Your task to perform on an android device: Empty the shopping cart on newegg. Add "razer nari" to the cart on newegg Image 0: 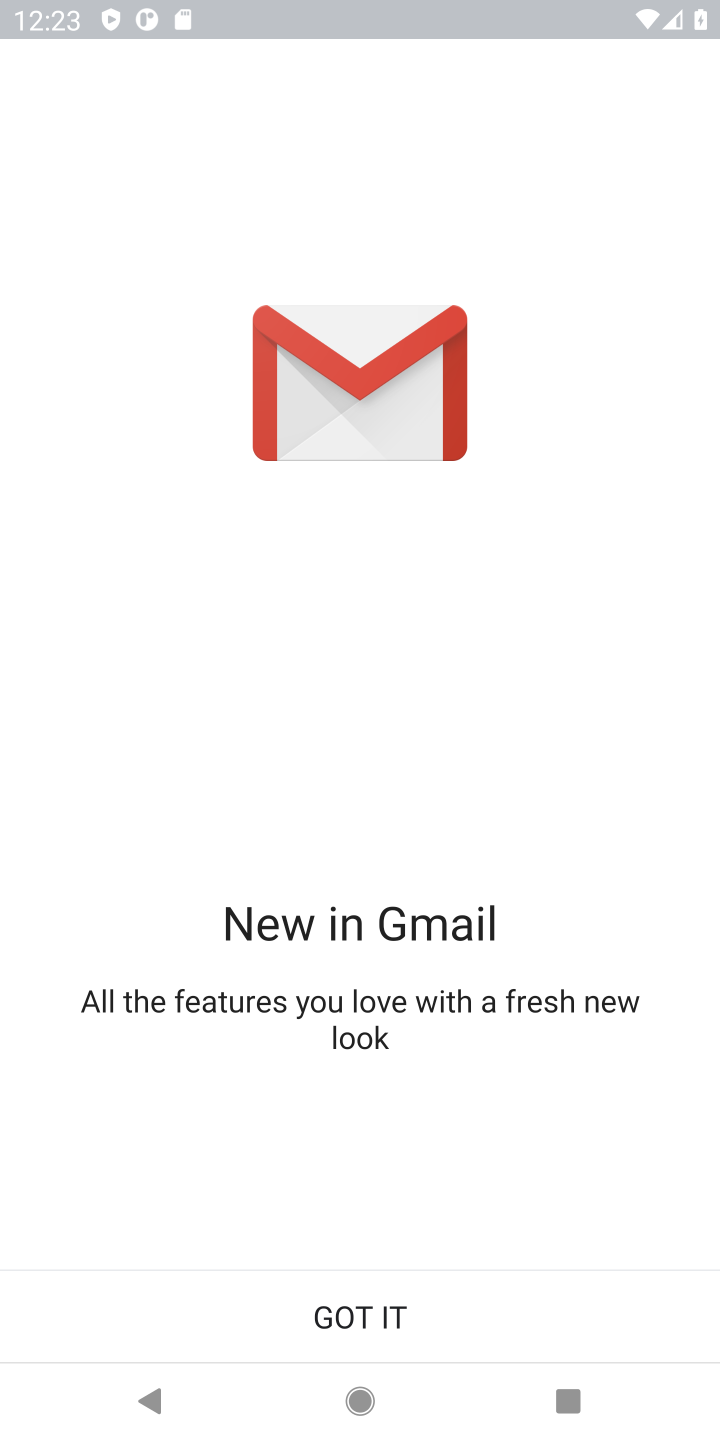
Step 0: press home button
Your task to perform on an android device: Empty the shopping cart on newegg. Add "razer nari" to the cart on newegg Image 1: 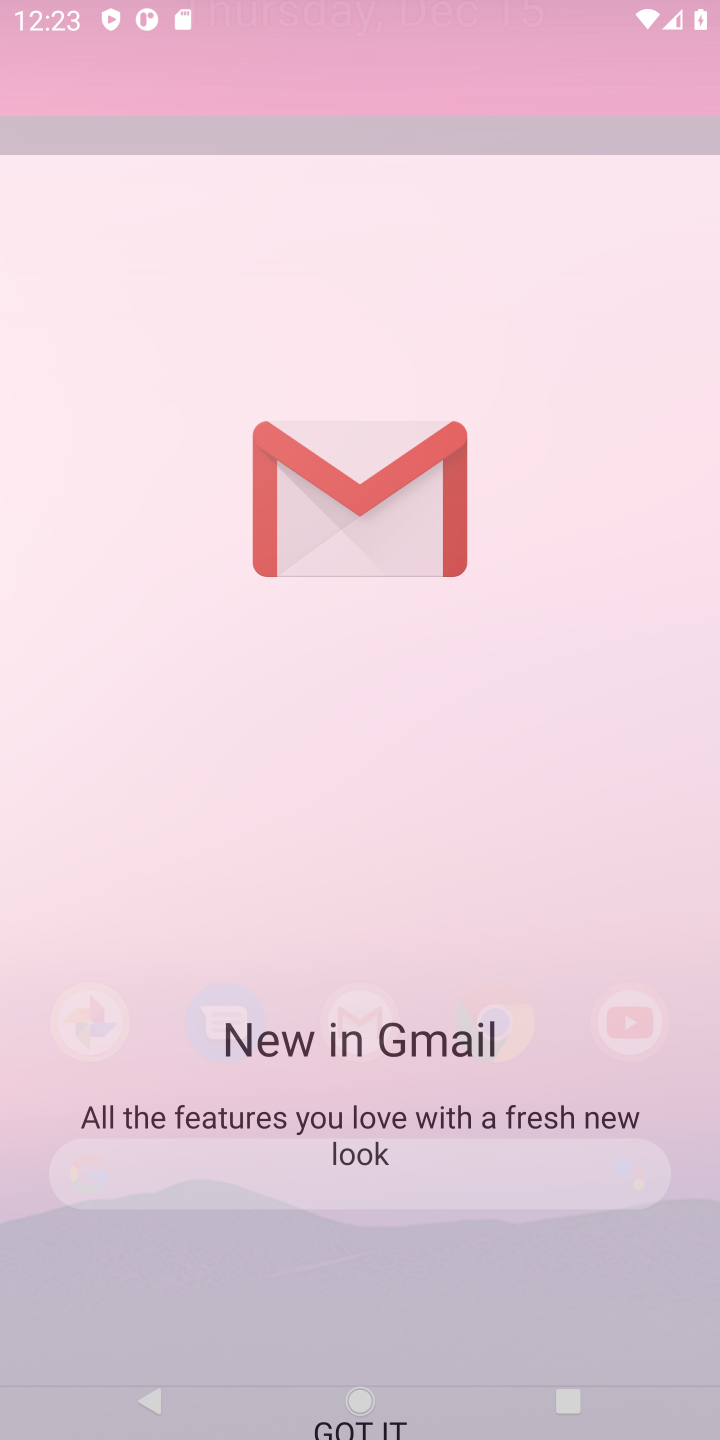
Step 1: press home button
Your task to perform on an android device: Empty the shopping cart on newegg. Add "razer nari" to the cart on newegg Image 2: 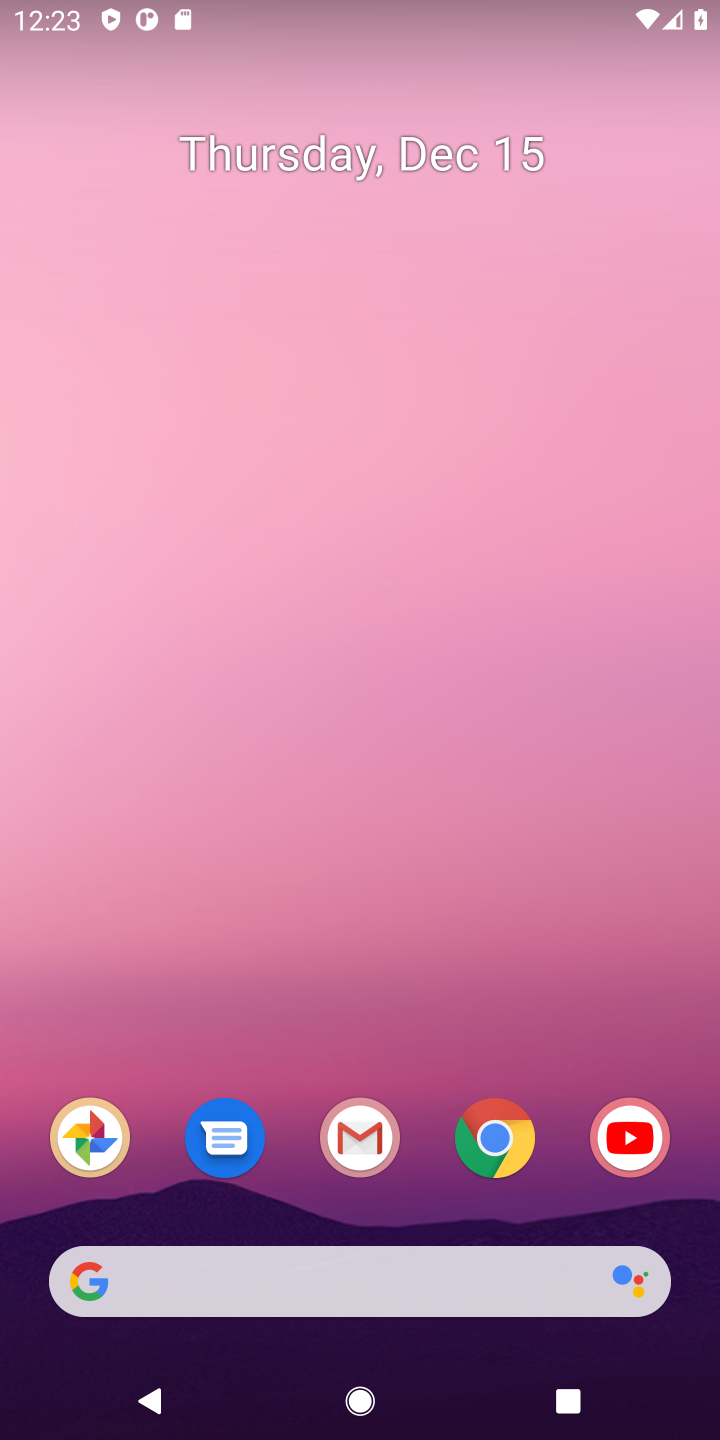
Step 2: click (489, 1139)
Your task to perform on an android device: Empty the shopping cart on newegg. Add "razer nari" to the cart on newegg Image 3: 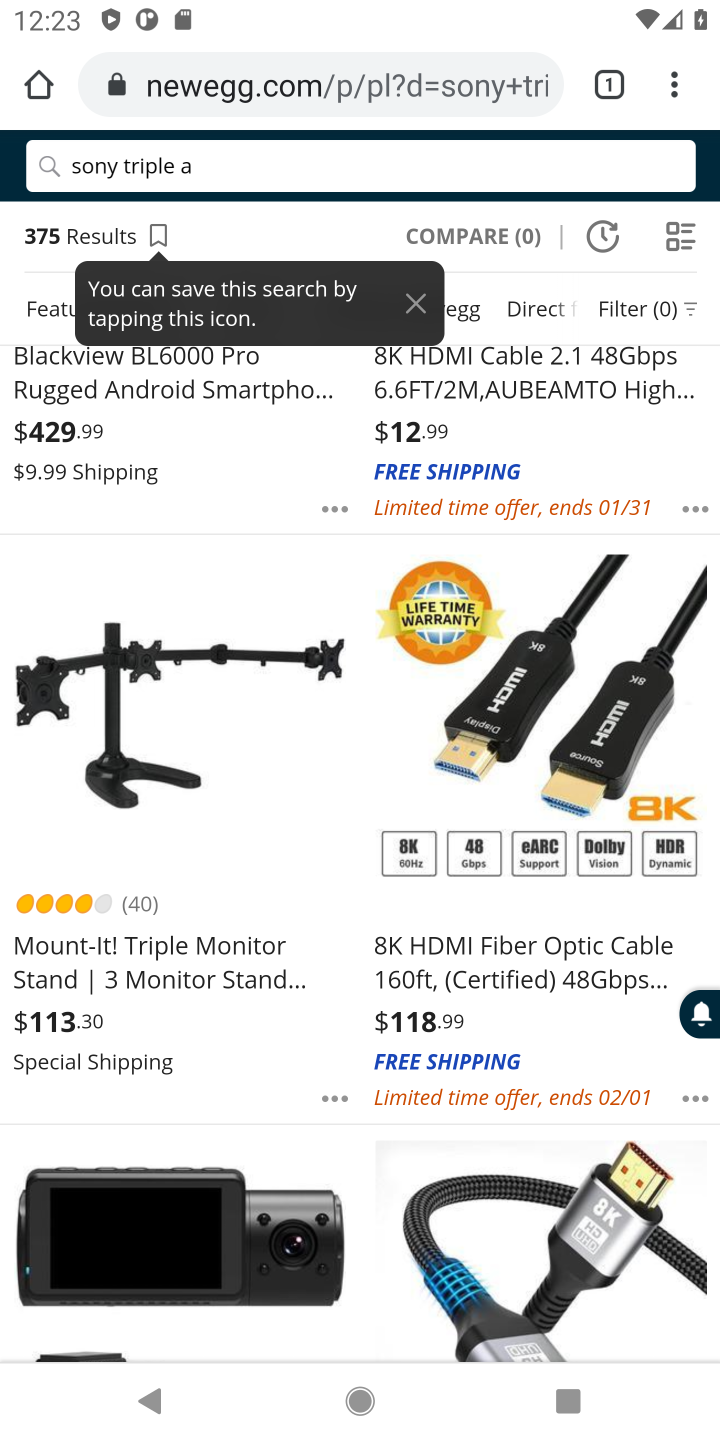
Step 3: click (254, 95)
Your task to perform on an android device: Empty the shopping cart on newegg. Add "razer nari" to the cart on newegg Image 4: 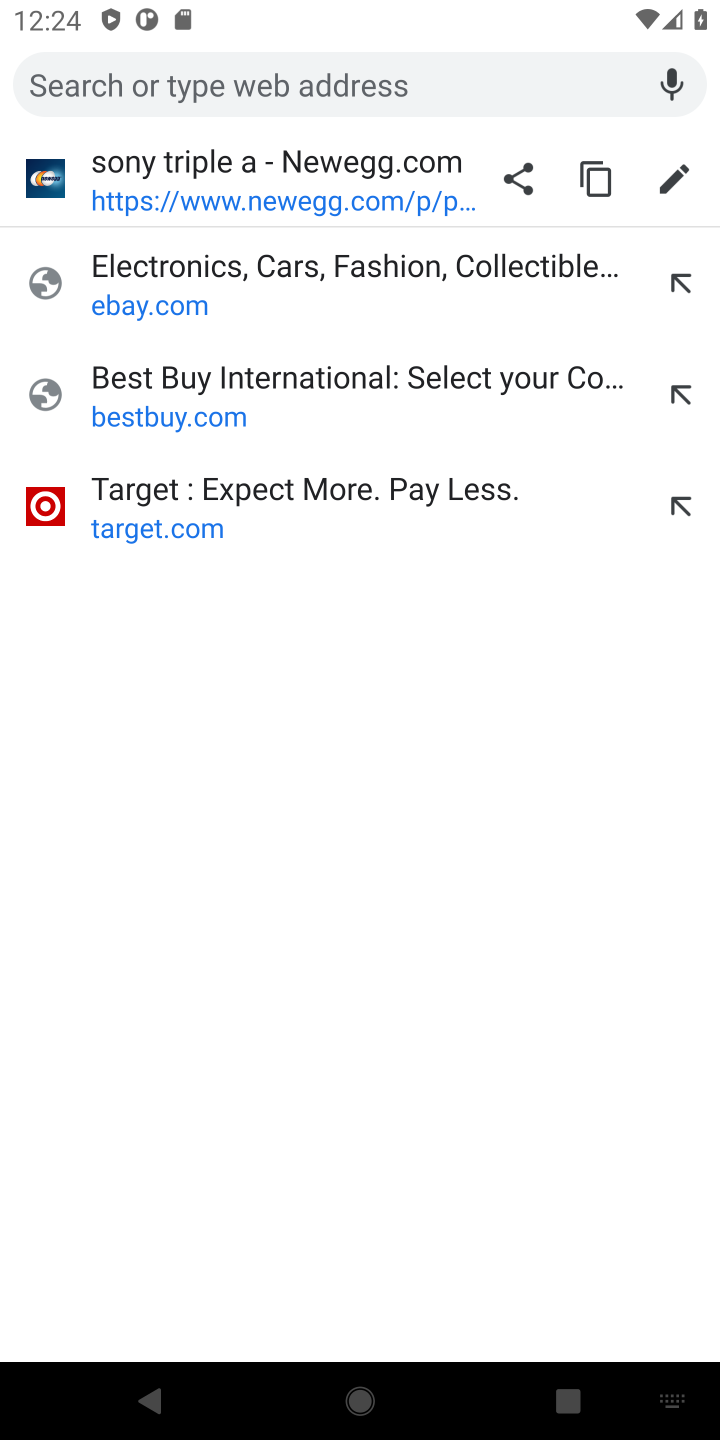
Step 4: type "newegg"
Your task to perform on an android device: Empty the shopping cart on newegg. Add "razer nari" to the cart on newegg Image 5: 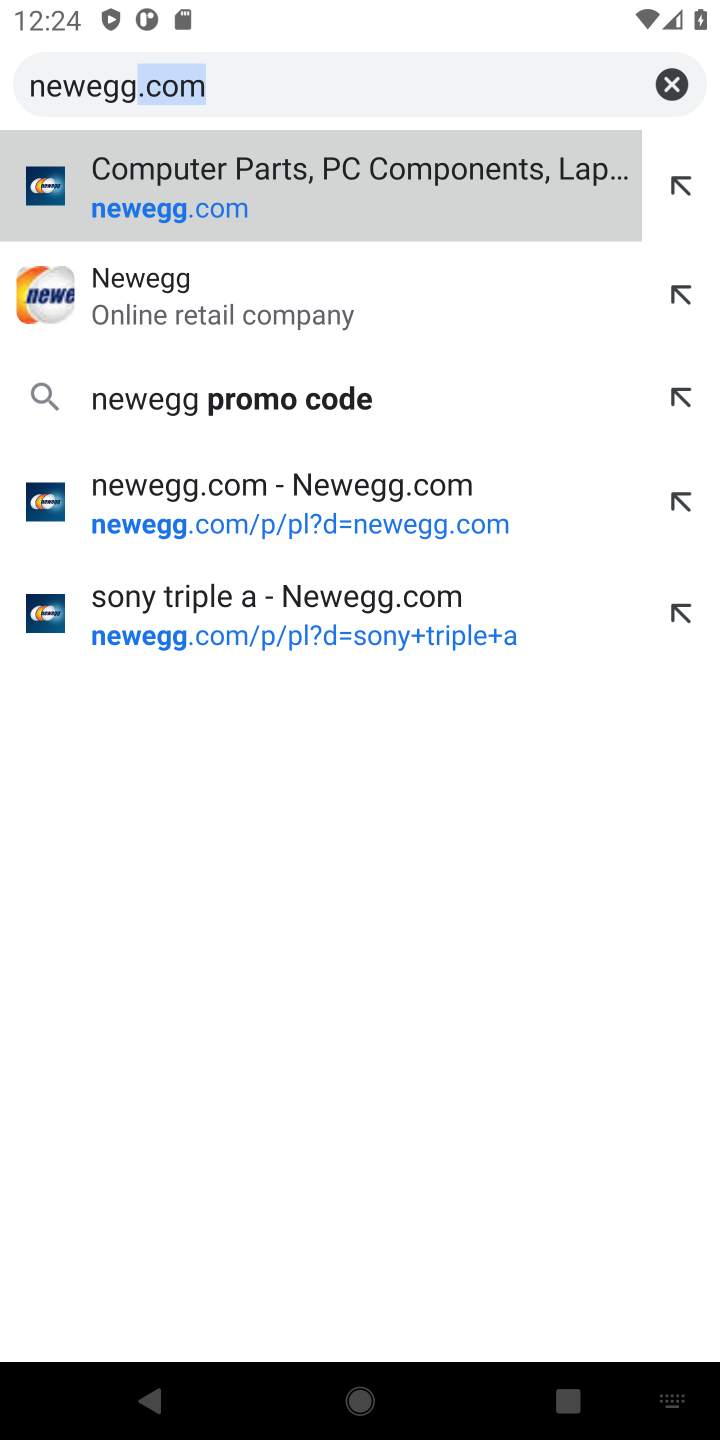
Step 5: click (160, 201)
Your task to perform on an android device: Empty the shopping cart on newegg. Add "razer nari" to the cart on newegg Image 6: 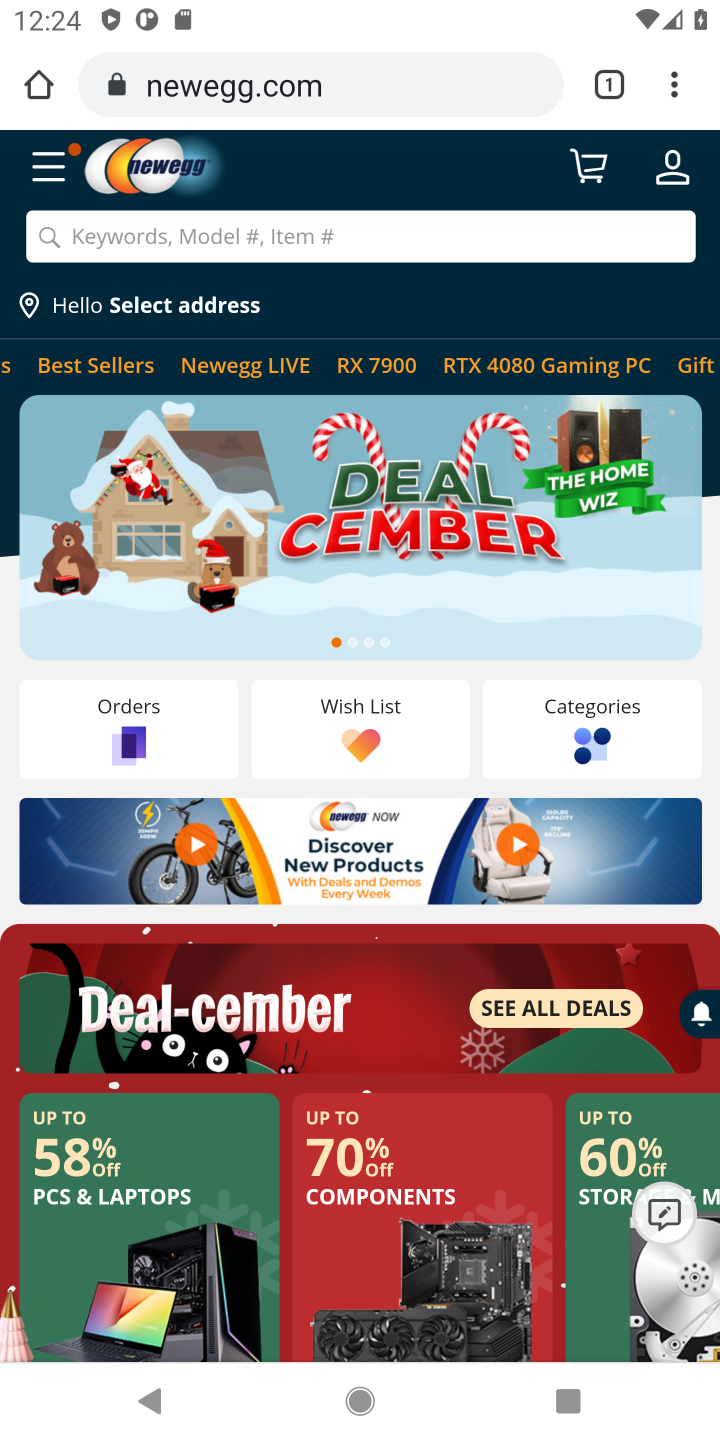
Step 6: click (597, 180)
Your task to perform on an android device: Empty the shopping cart on newegg. Add "razer nari" to the cart on newegg Image 7: 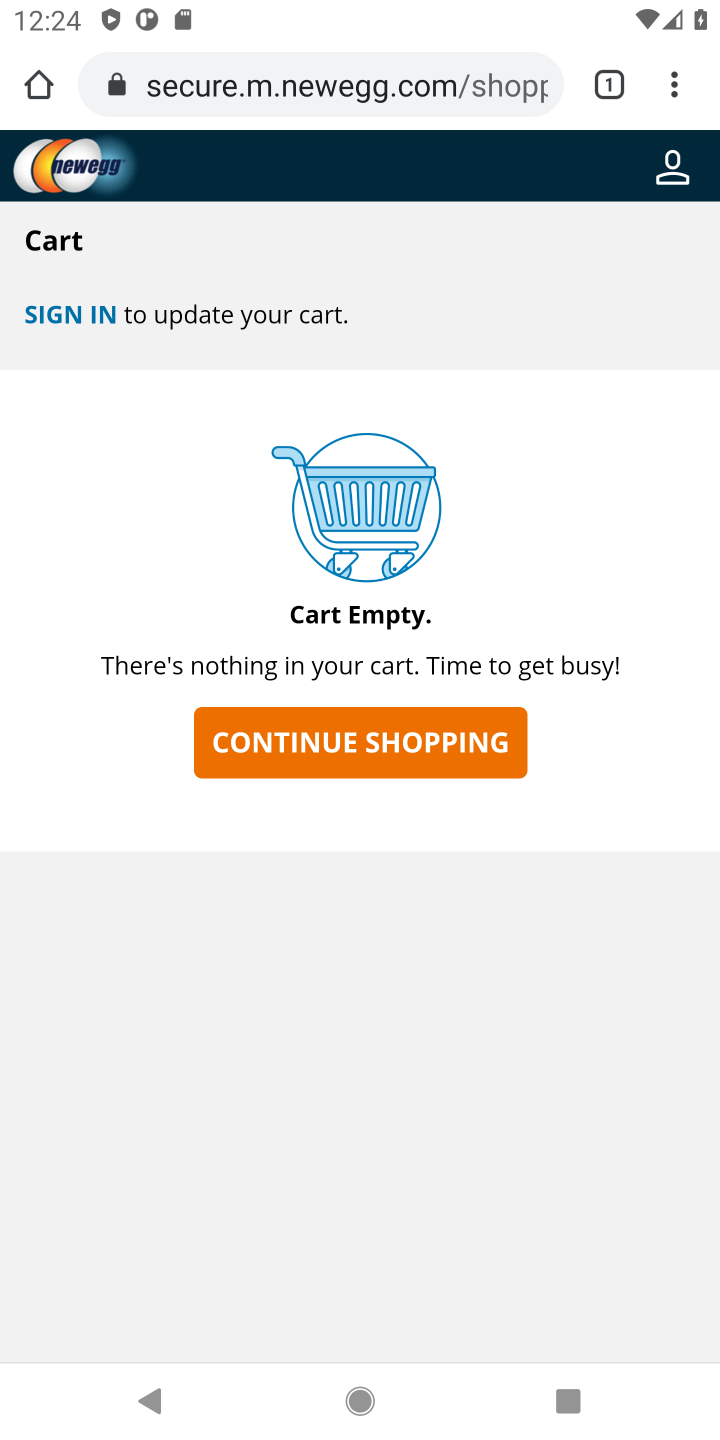
Step 7: click (76, 172)
Your task to perform on an android device: Empty the shopping cart on newegg. Add "razer nari" to the cart on newegg Image 8: 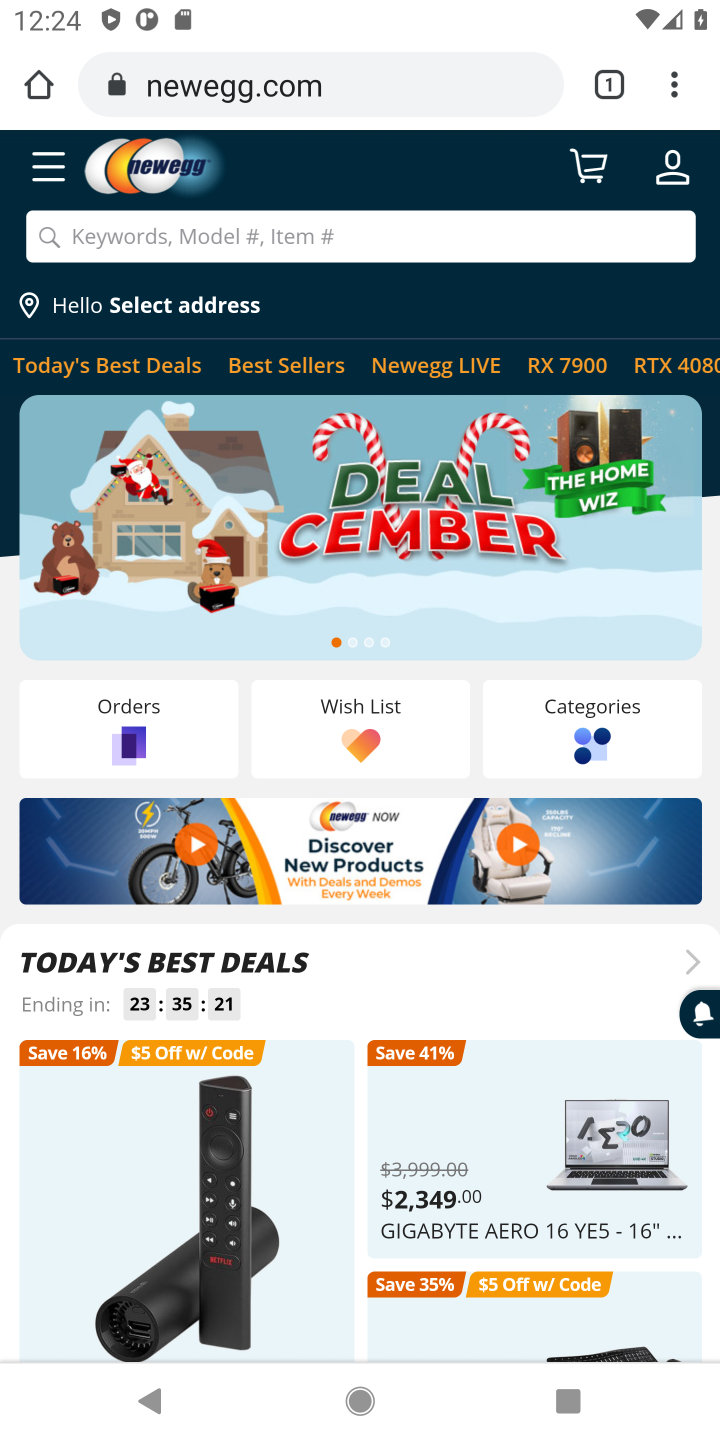
Step 8: click (257, 218)
Your task to perform on an android device: Empty the shopping cart on newegg. Add "razer nari" to the cart on newegg Image 9: 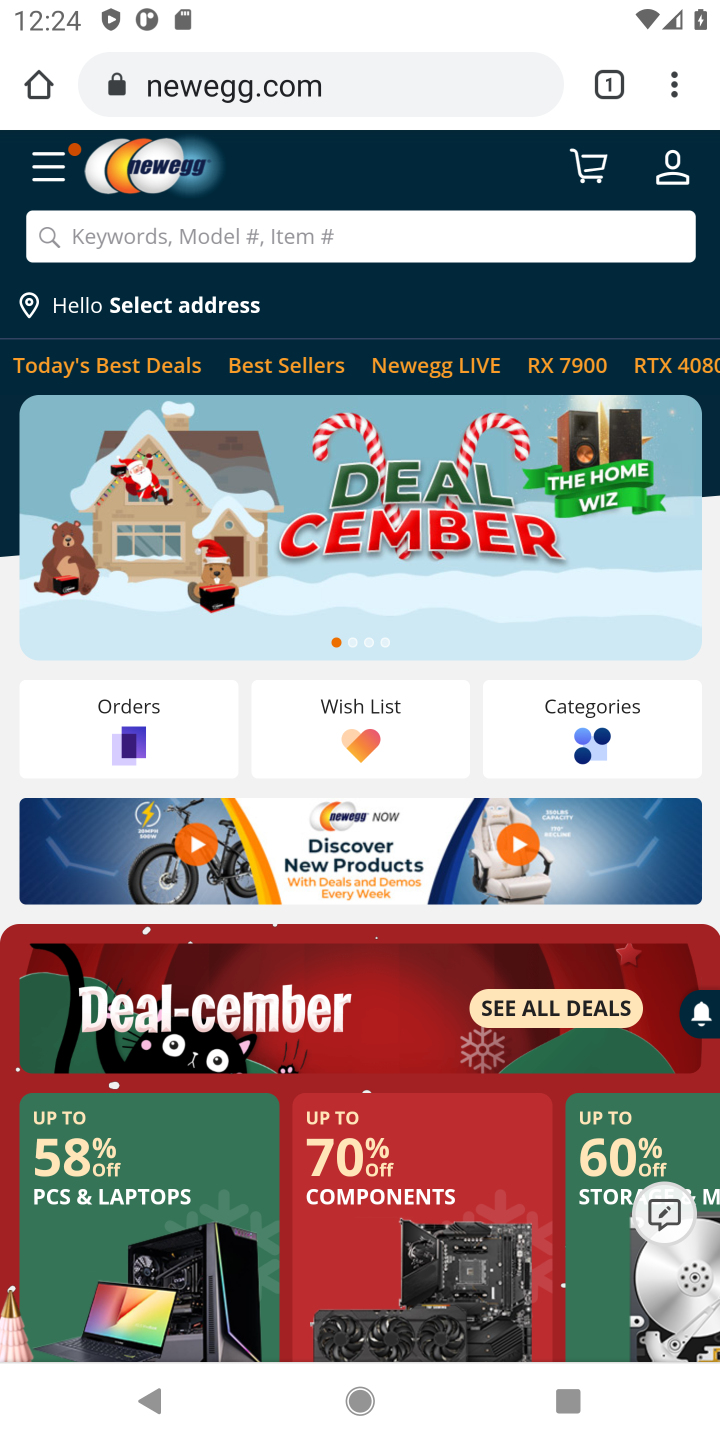
Step 9: click (238, 231)
Your task to perform on an android device: Empty the shopping cart on newegg. Add "razer nari" to the cart on newegg Image 10: 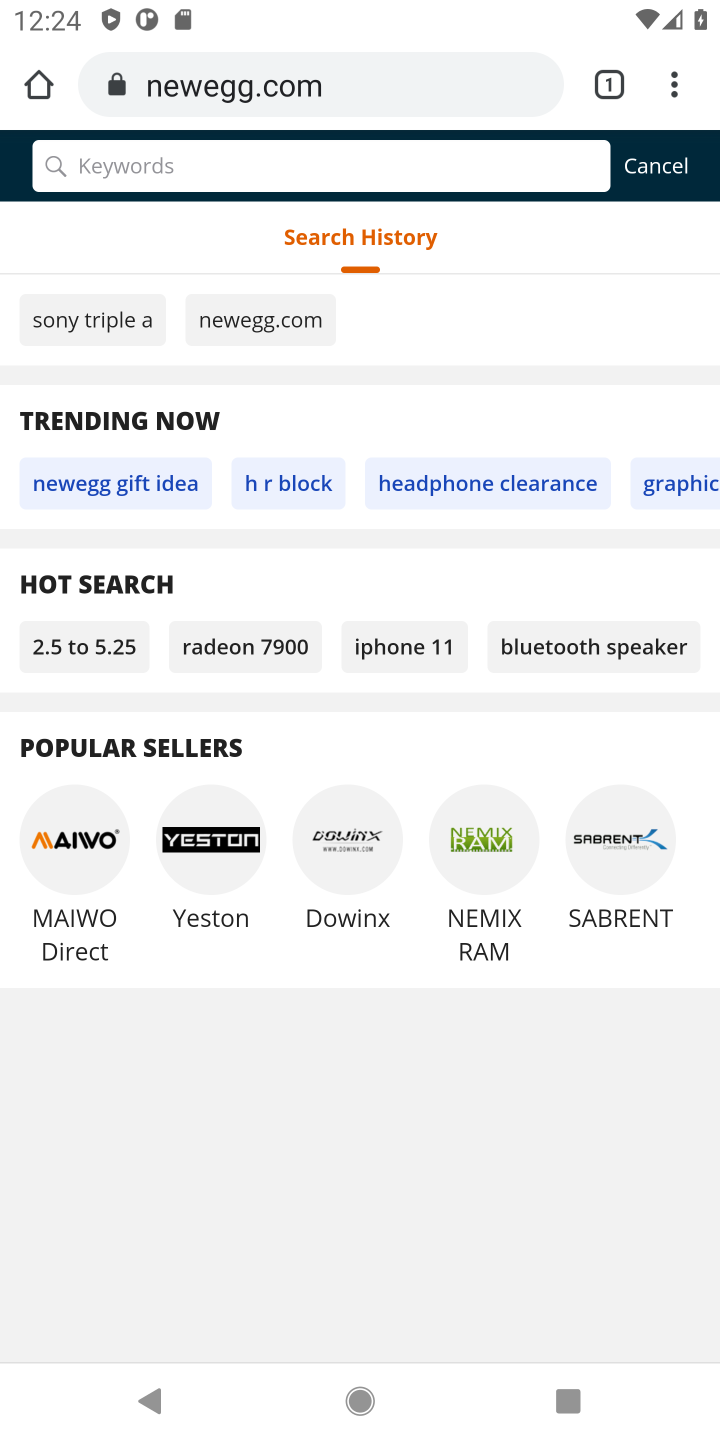
Step 10: type "razer nari"
Your task to perform on an android device: Empty the shopping cart on newegg. Add "razer nari" to the cart on newegg Image 11: 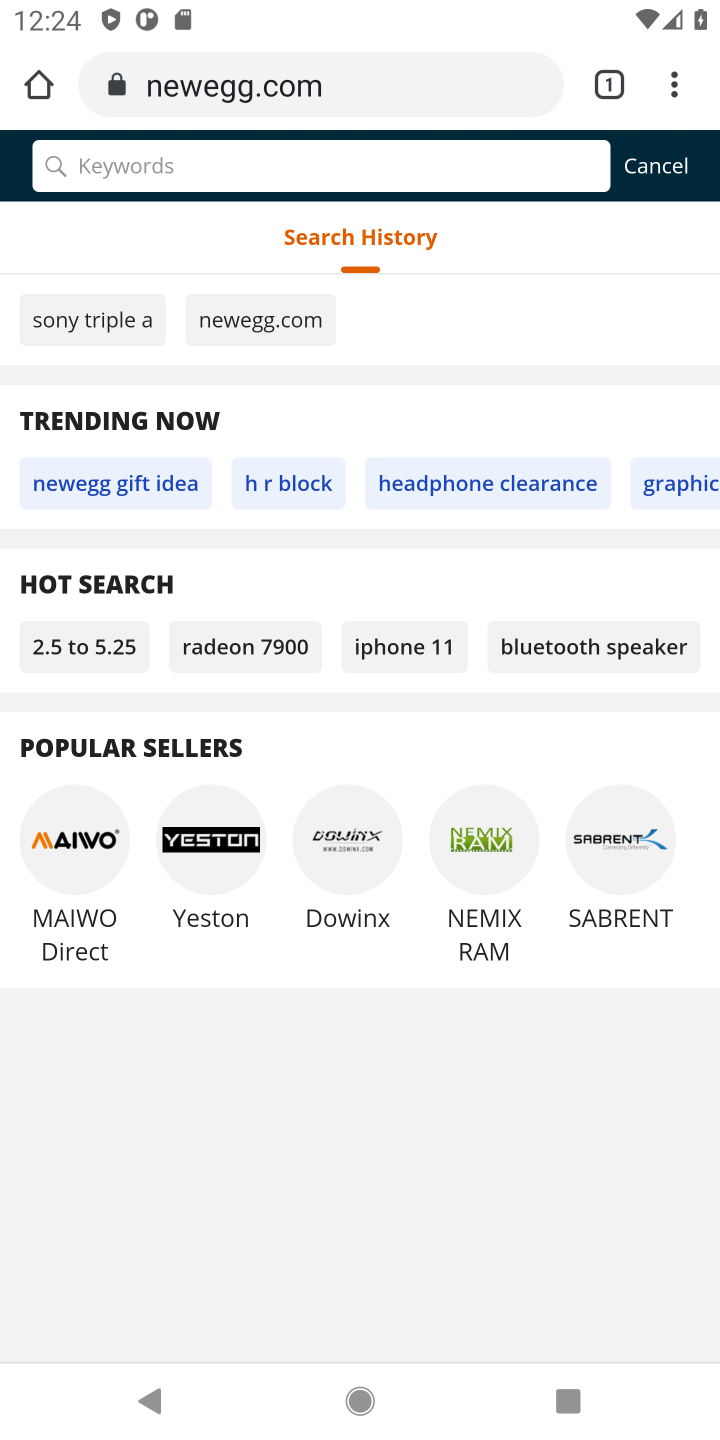
Step 11: type "razer nari"
Your task to perform on an android device: Empty the shopping cart on newegg. Add "razer nari" to the cart on newegg Image 12: 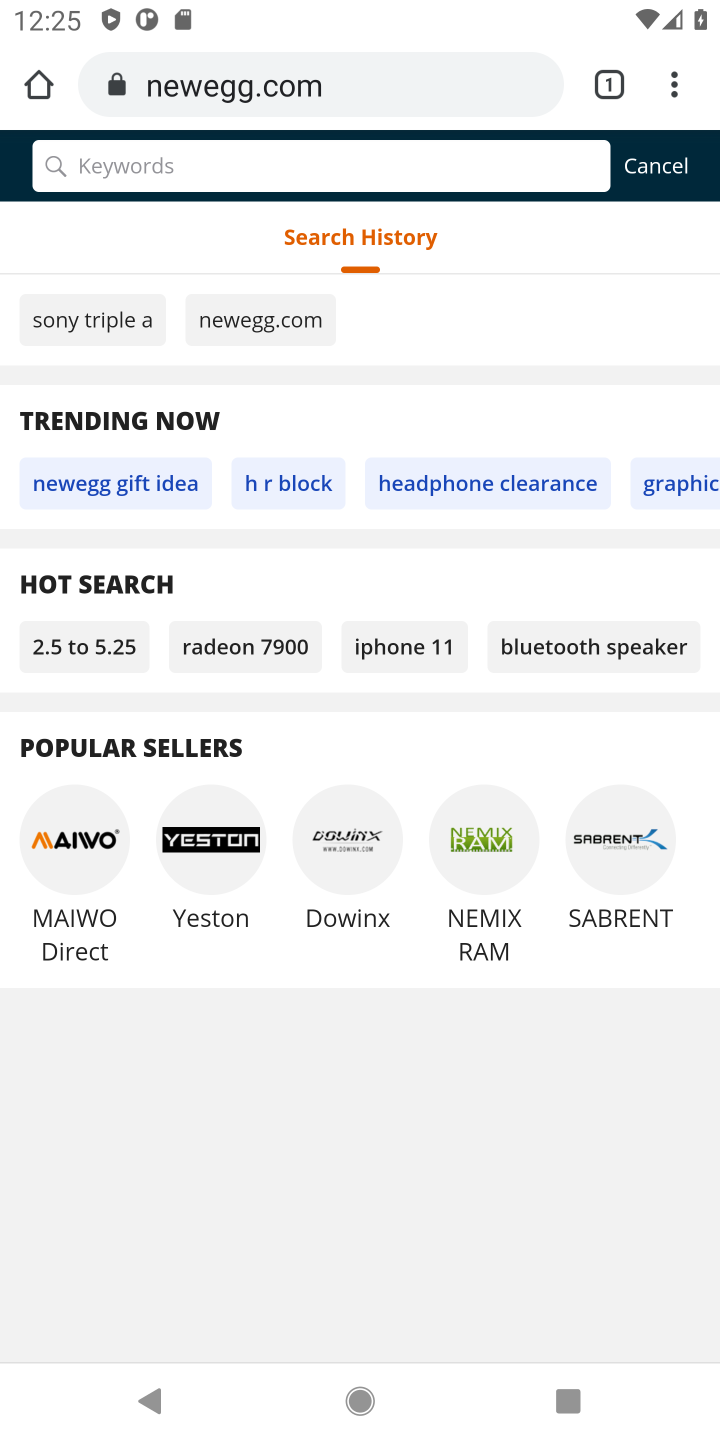
Step 12: click (118, 166)
Your task to perform on an android device: Empty the shopping cart on newegg. Add "razer nari" to the cart on newegg Image 13: 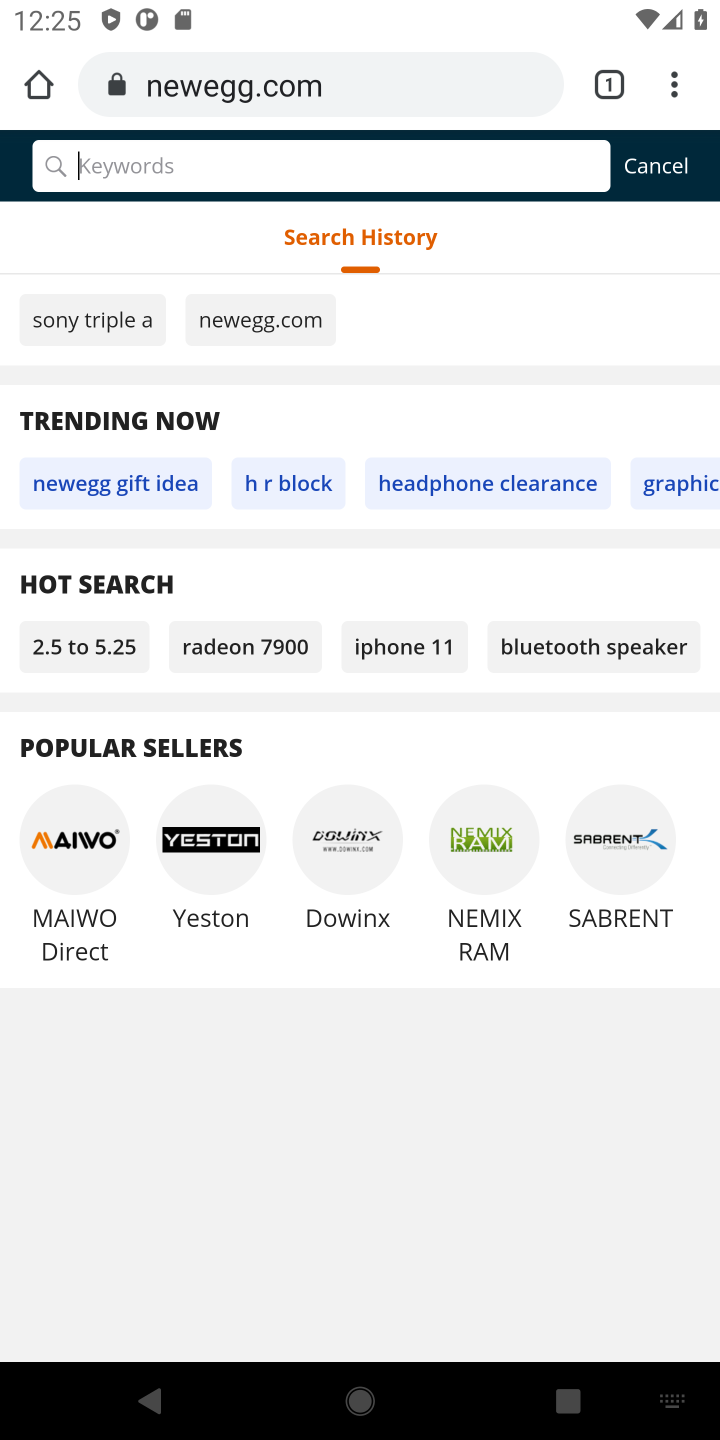
Step 13: type "razer nari"
Your task to perform on an android device: Empty the shopping cart on newegg. Add "razer nari" to the cart on newegg Image 14: 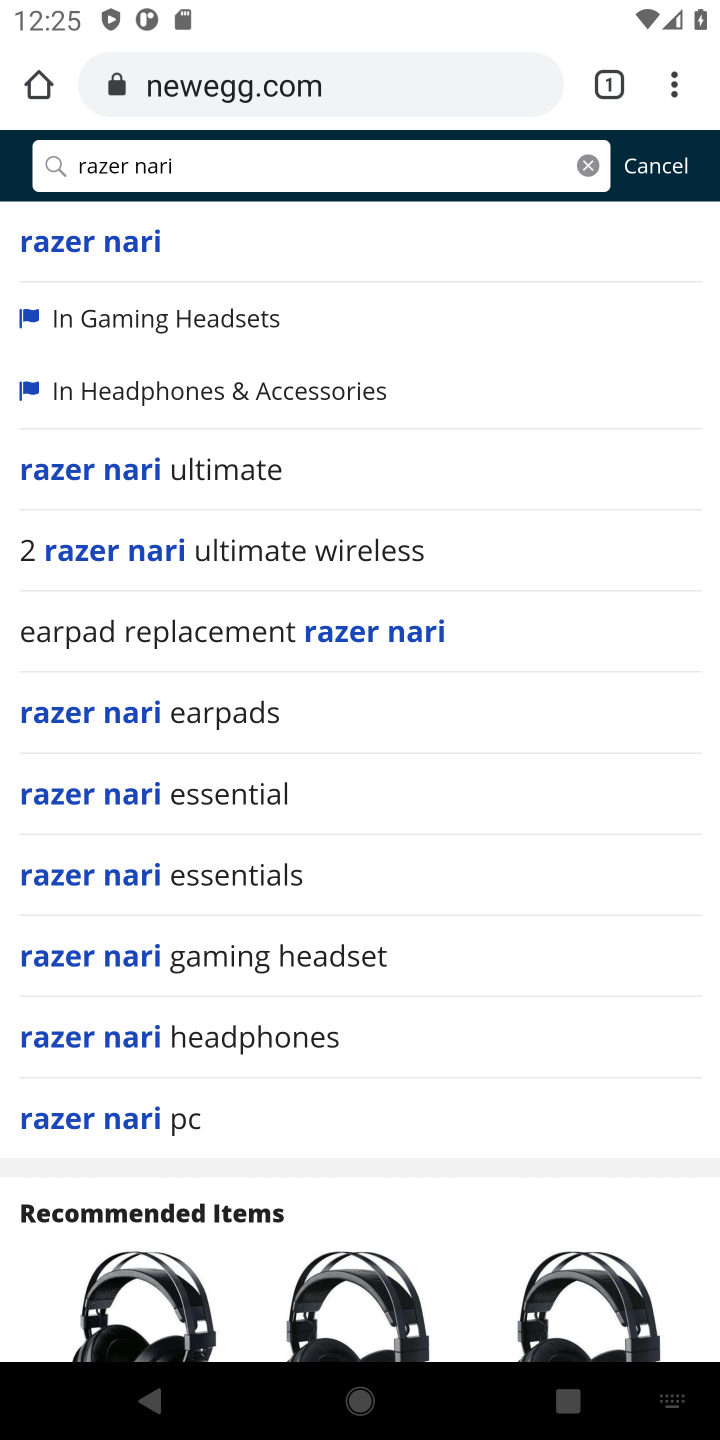
Step 14: press enter
Your task to perform on an android device: Empty the shopping cart on newegg. Add "razer nari" to the cart on newegg Image 15: 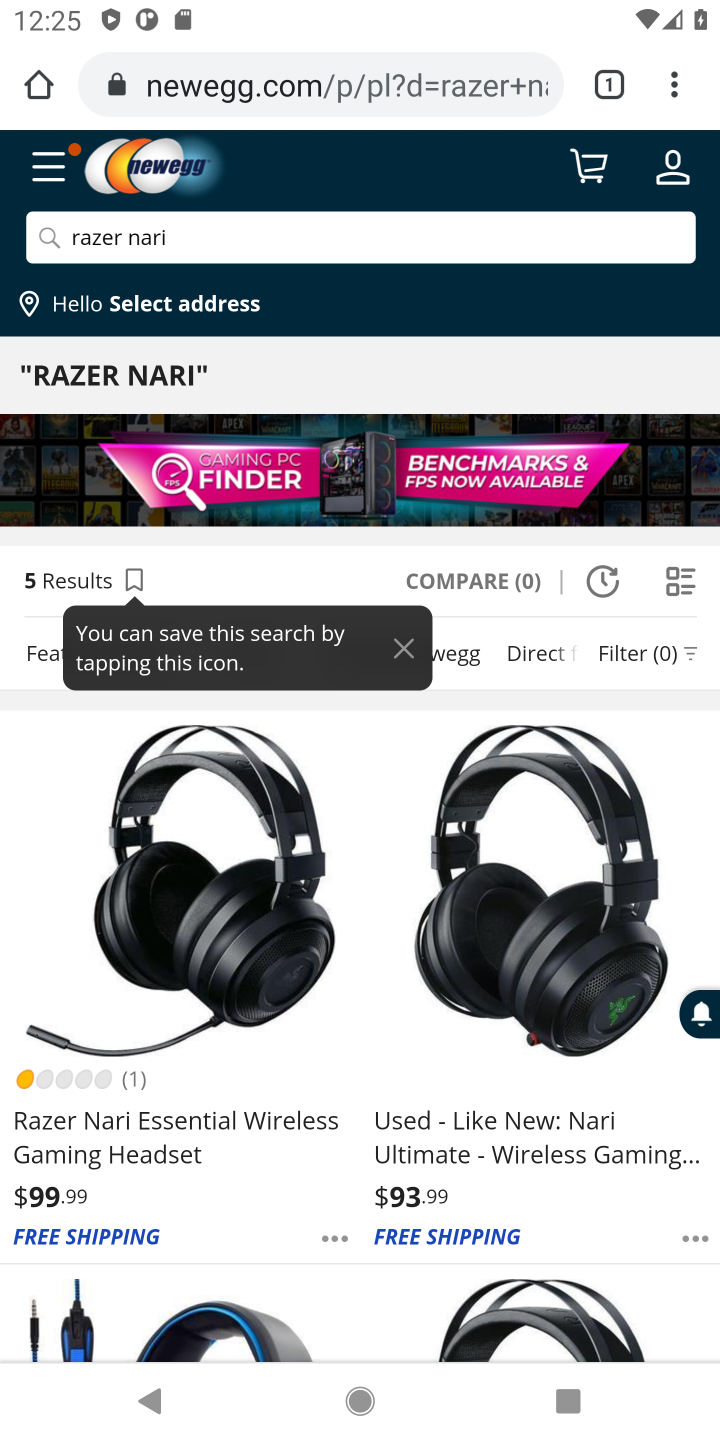
Step 15: click (143, 993)
Your task to perform on an android device: Empty the shopping cart on newegg. Add "razer nari" to the cart on newegg Image 16: 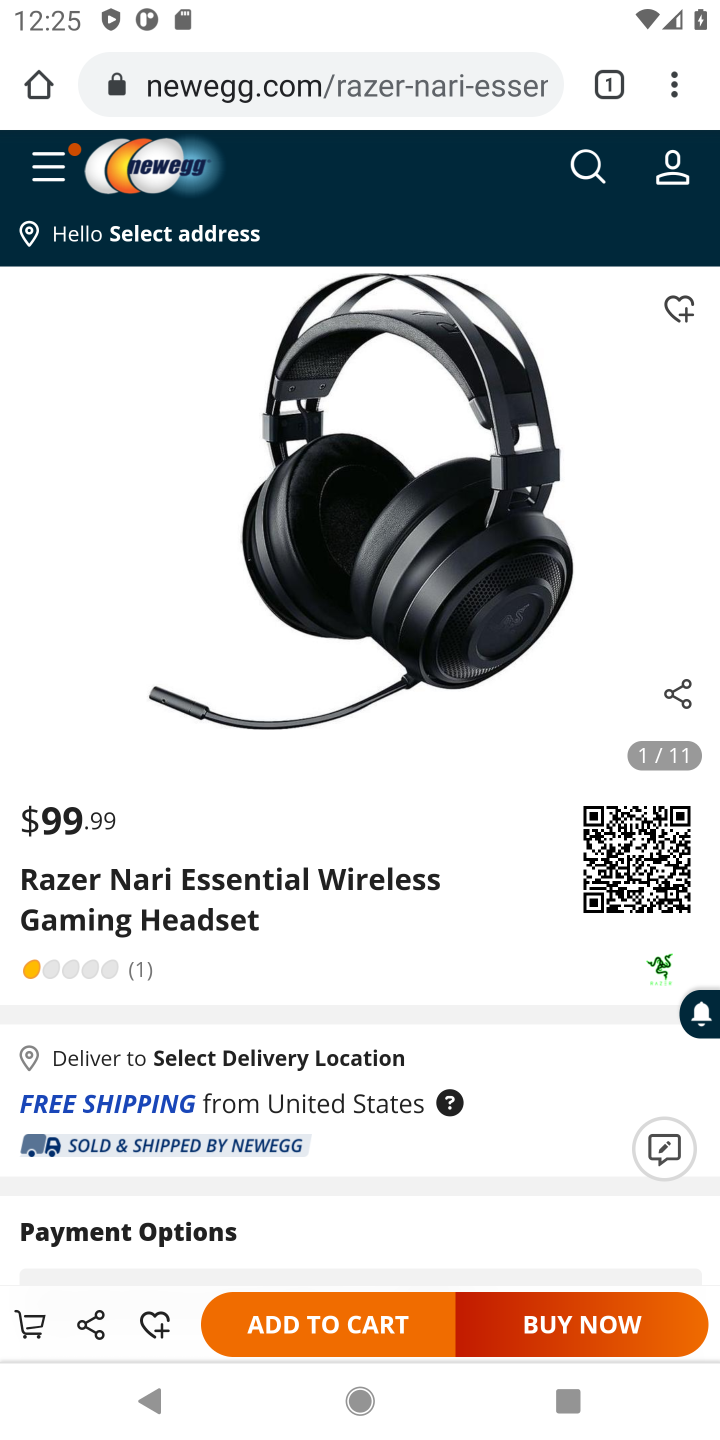
Step 16: click (297, 1312)
Your task to perform on an android device: Empty the shopping cart on newegg. Add "razer nari" to the cart on newegg Image 17: 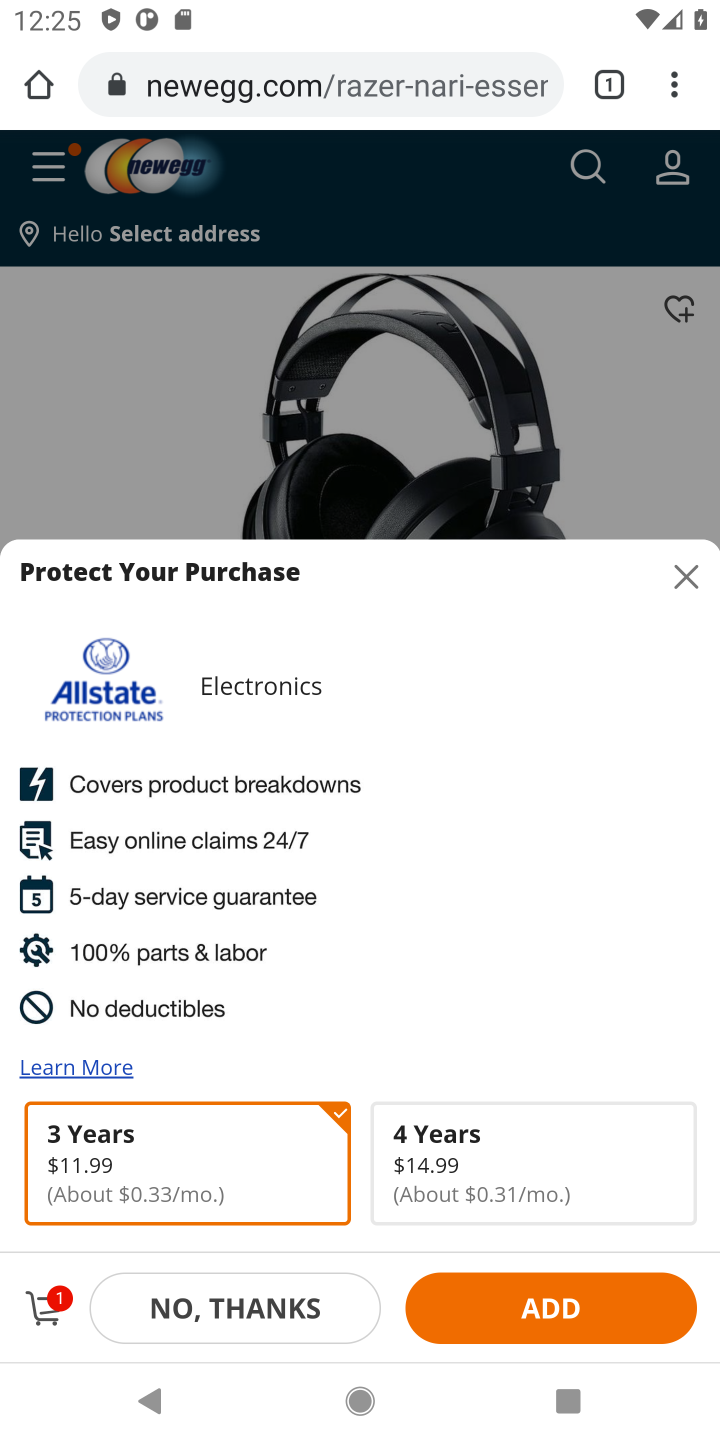
Step 17: click (519, 1317)
Your task to perform on an android device: Empty the shopping cart on newegg. Add "razer nari" to the cart on newegg Image 18: 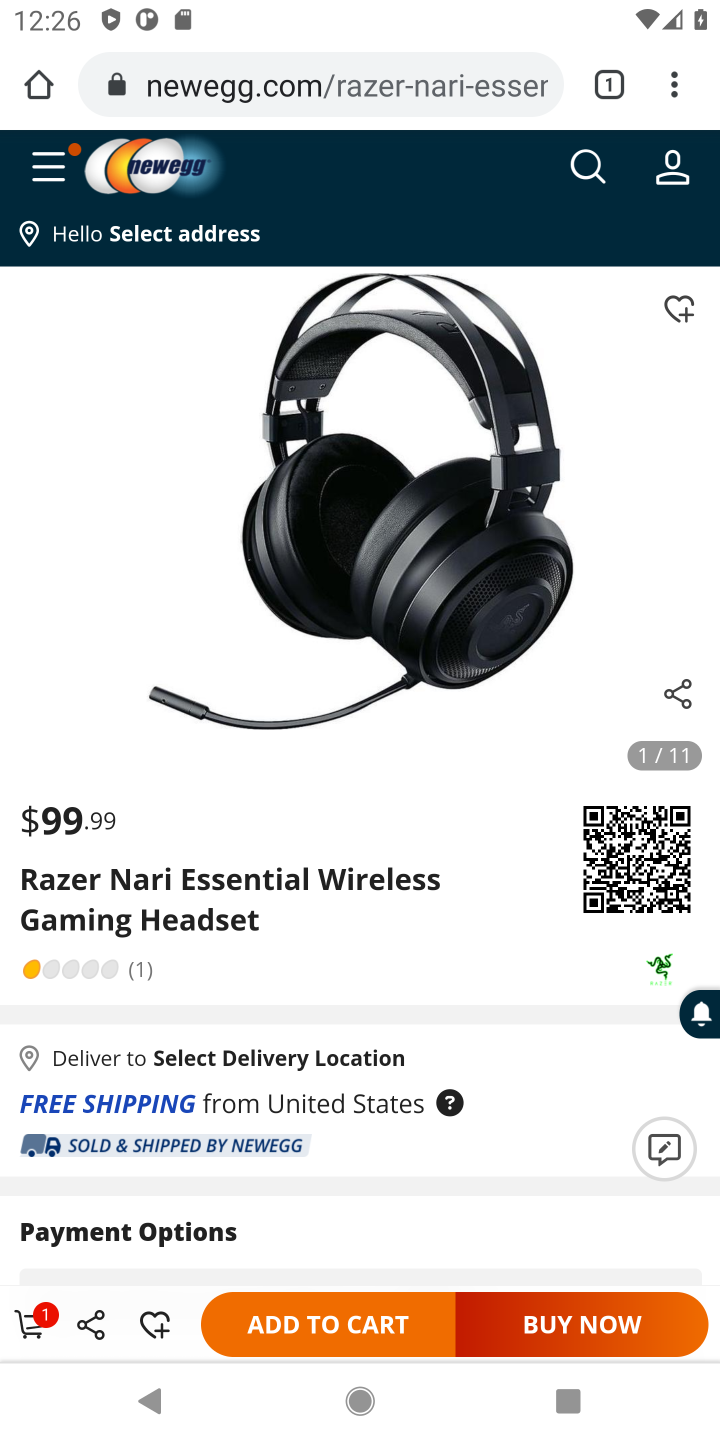
Step 18: task complete